Your task to perform on an android device: Add usb-c to the cart on bestbuy, then select checkout. Image 0: 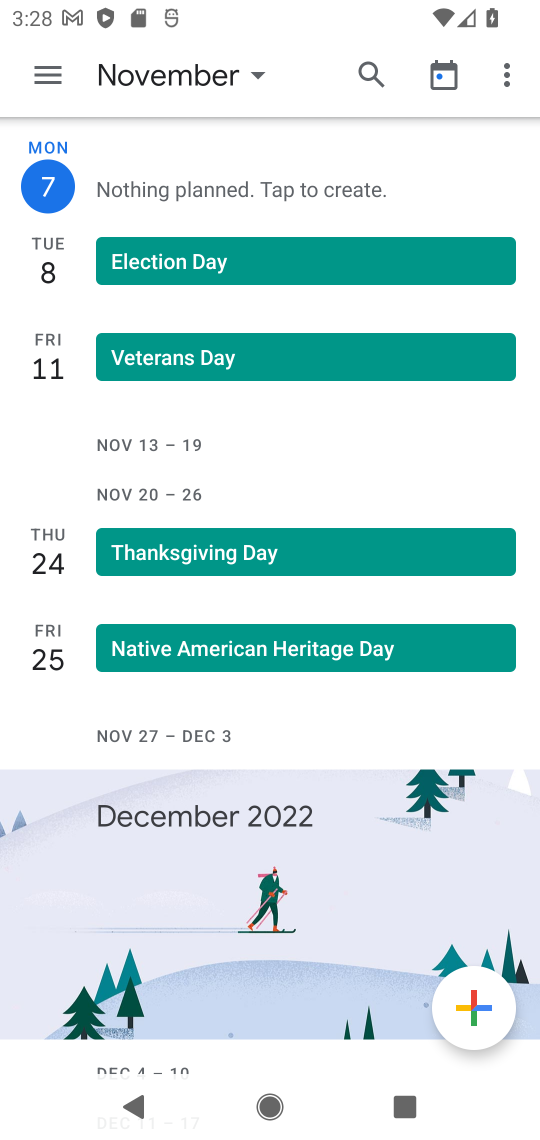
Step 0: press home button
Your task to perform on an android device: Add usb-c to the cart on bestbuy, then select checkout. Image 1: 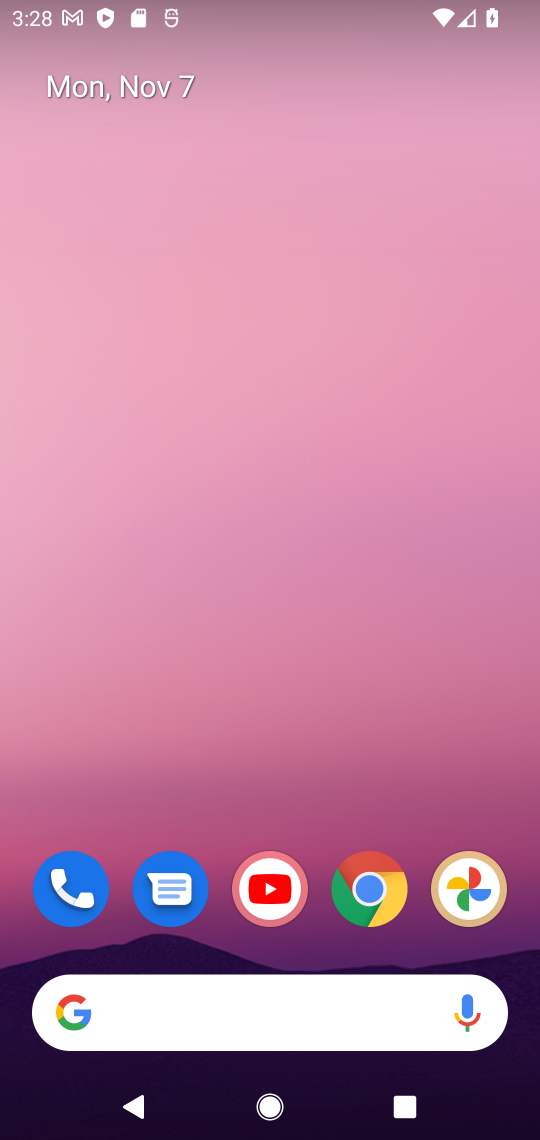
Step 1: click (383, 898)
Your task to perform on an android device: Add usb-c to the cart on bestbuy, then select checkout. Image 2: 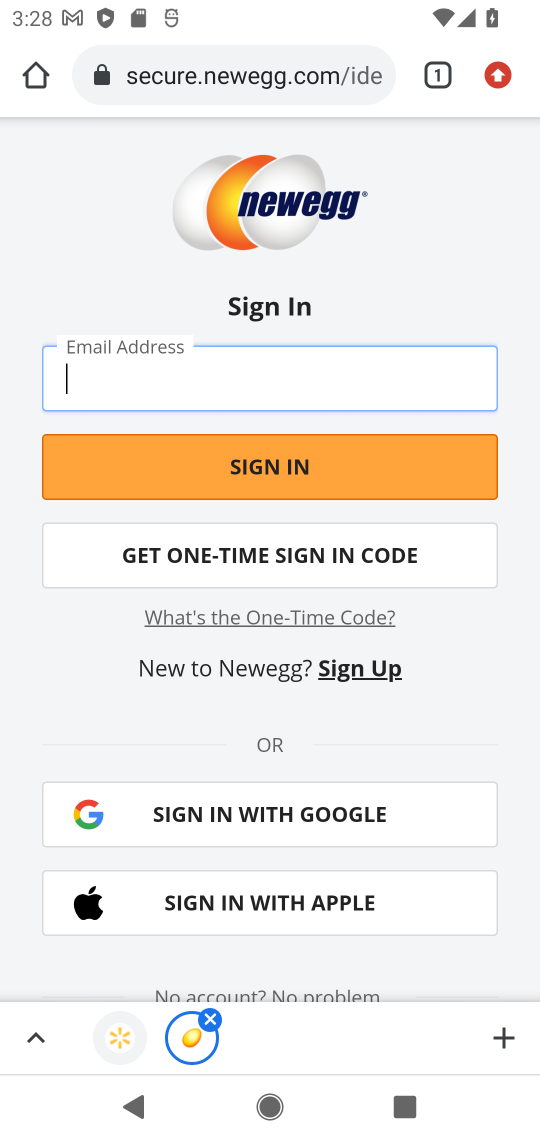
Step 2: click (247, 80)
Your task to perform on an android device: Add usb-c to the cart on bestbuy, then select checkout. Image 3: 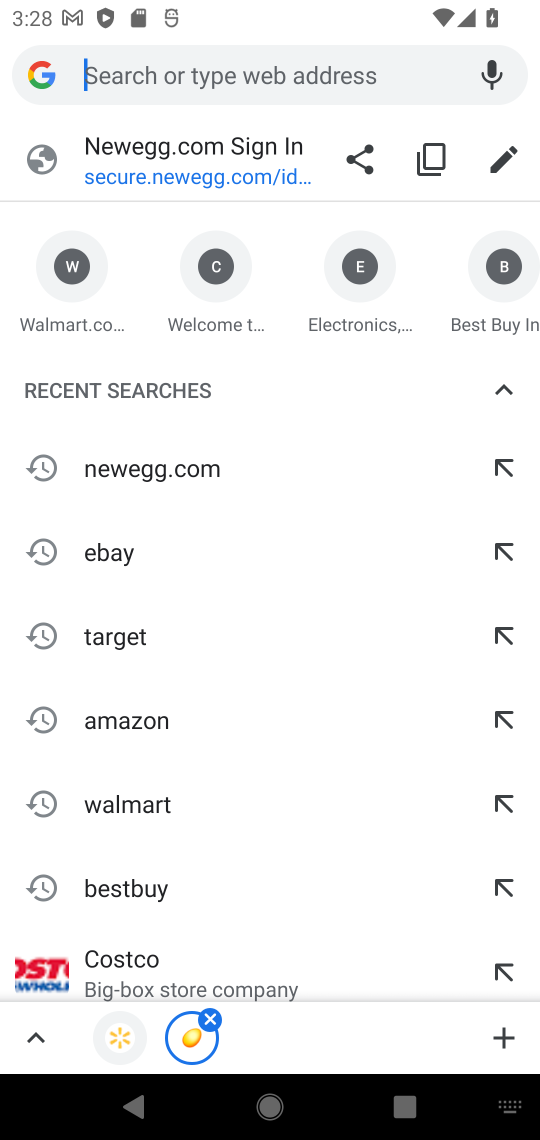
Step 3: type "bestbuy"
Your task to perform on an android device: Add usb-c to the cart on bestbuy, then select checkout. Image 4: 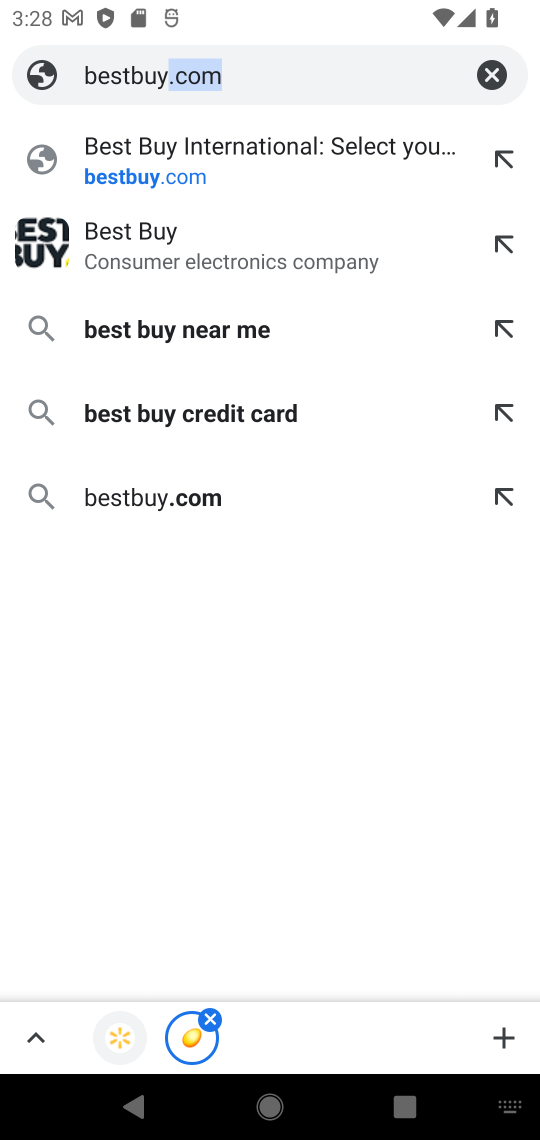
Step 4: click (231, 133)
Your task to perform on an android device: Add usb-c to the cart on bestbuy, then select checkout. Image 5: 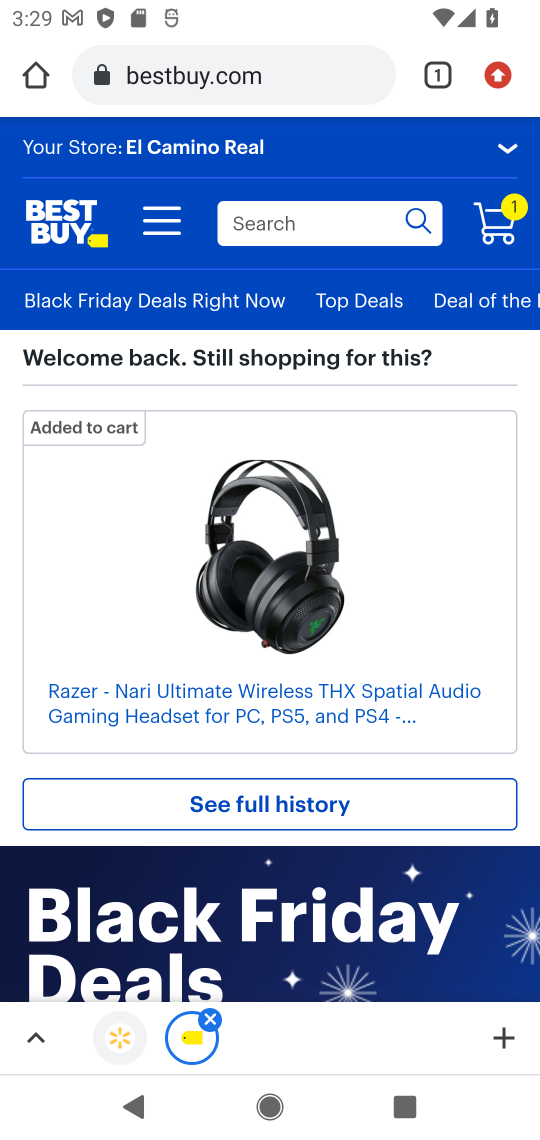
Step 5: click (310, 228)
Your task to perform on an android device: Add usb-c to the cart on bestbuy, then select checkout. Image 6: 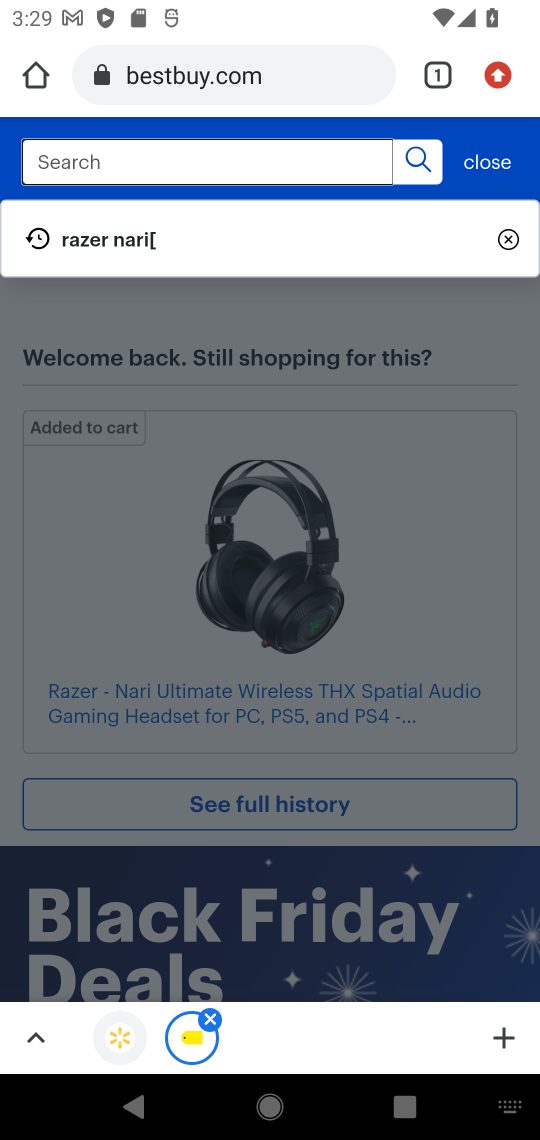
Step 6: type "usb c"
Your task to perform on an android device: Add usb-c to the cart on bestbuy, then select checkout. Image 7: 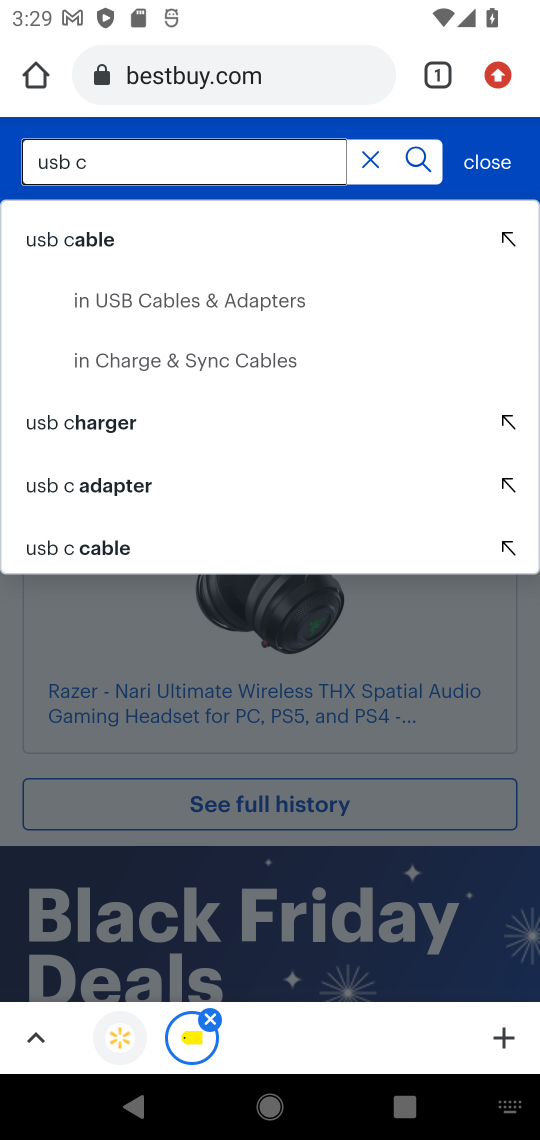
Step 7: press enter
Your task to perform on an android device: Add usb-c to the cart on bestbuy, then select checkout. Image 8: 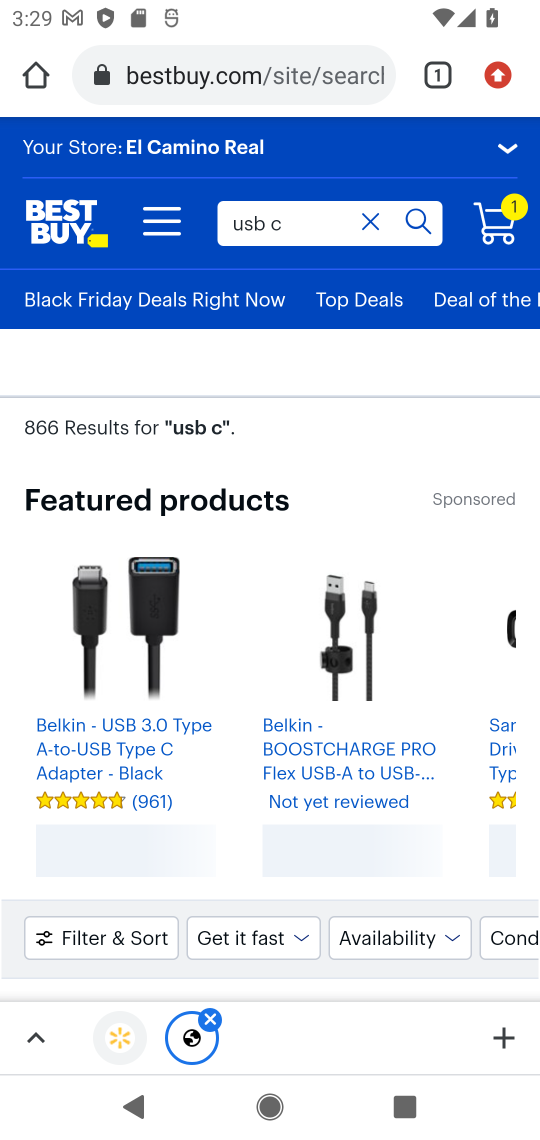
Step 8: click (161, 679)
Your task to perform on an android device: Add usb-c to the cart on bestbuy, then select checkout. Image 9: 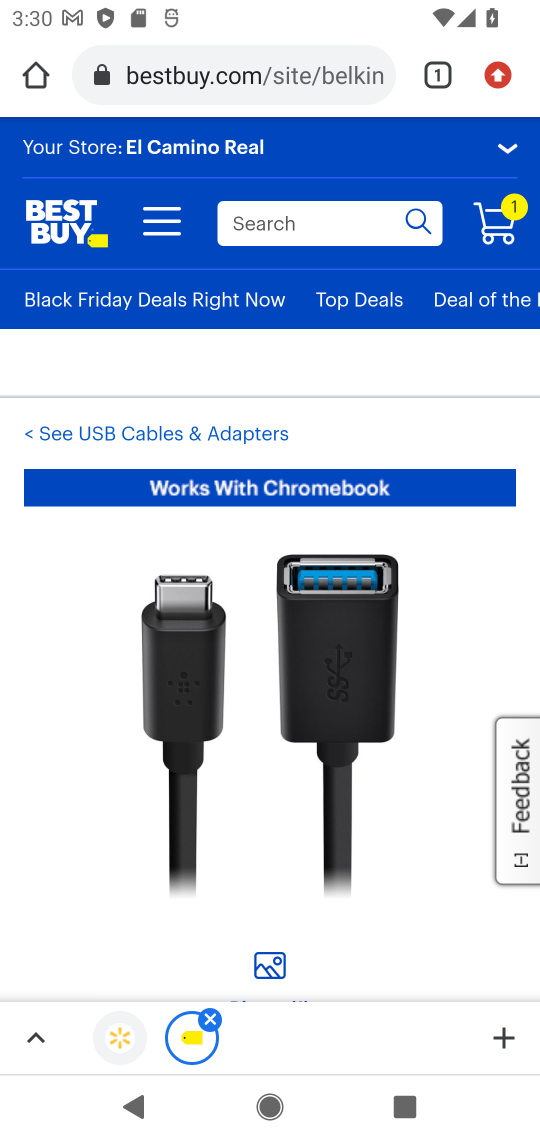
Step 9: drag from (307, 993) to (277, 564)
Your task to perform on an android device: Add usb-c to the cart on bestbuy, then select checkout. Image 10: 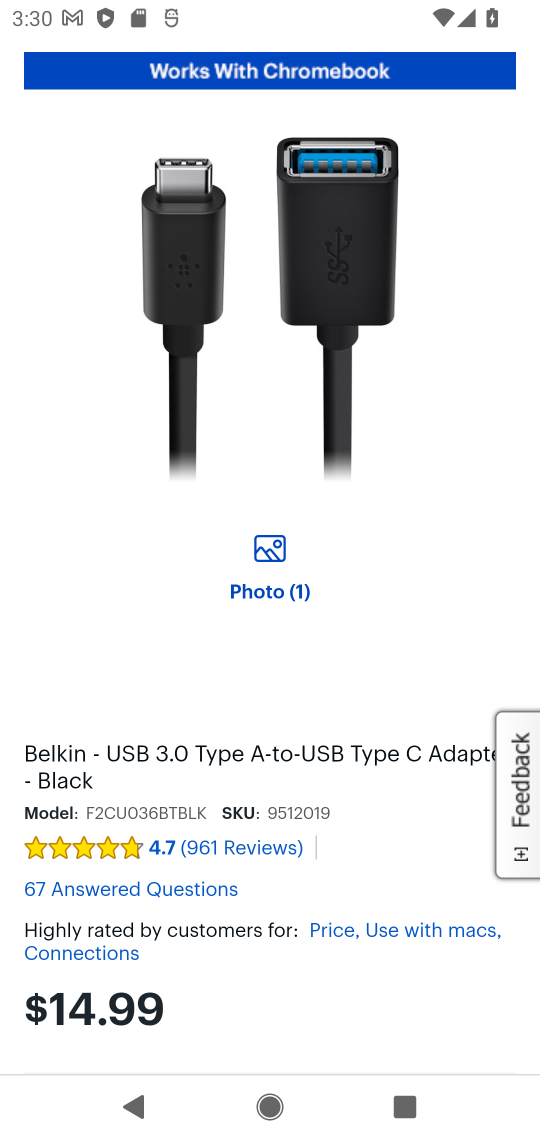
Step 10: drag from (327, 816) to (423, 145)
Your task to perform on an android device: Add usb-c to the cart on bestbuy, then select checkout. Image 11: 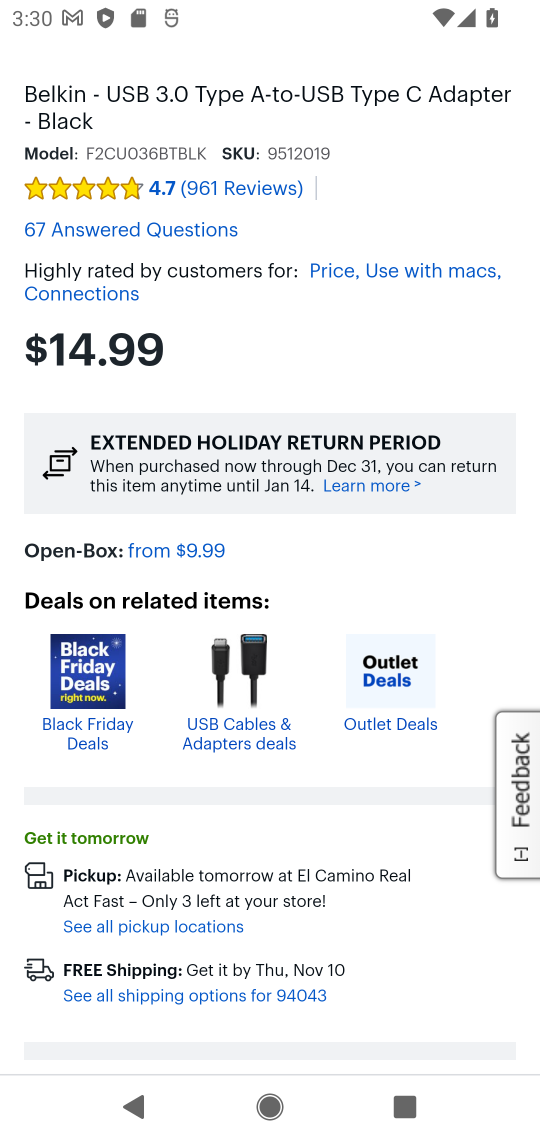
Step 11: drag from (378, 898) to (363, 311)
Your task to perform on an android device: Add usb-c to the cart on bestbuy, then select checkout. Image 12: 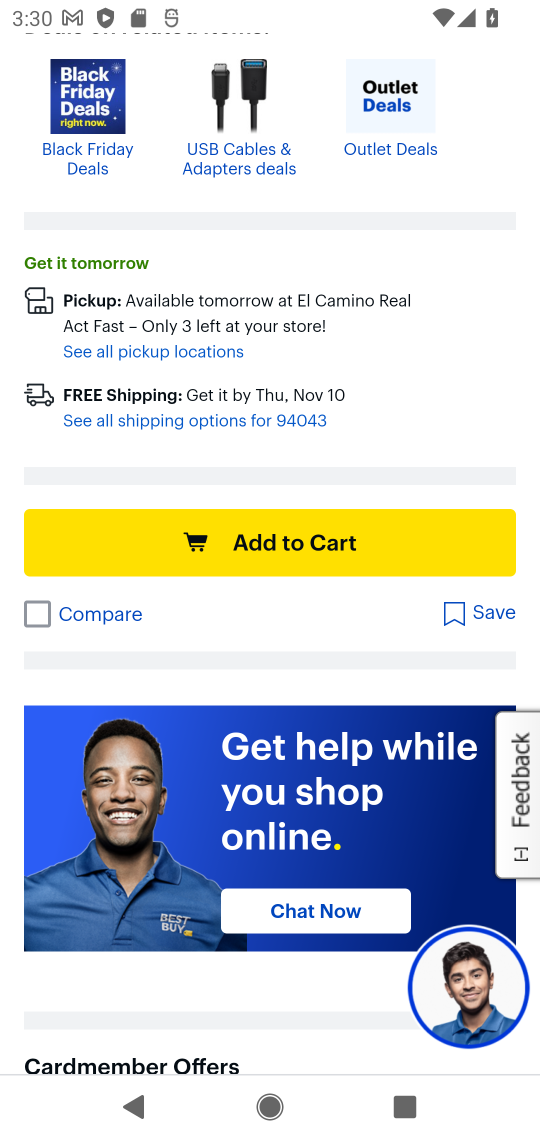
Step 12: click (419, 550)
Your task to perform on an android device: Add usb-c to the cart on bestbuy, then select checkout. Image 13: 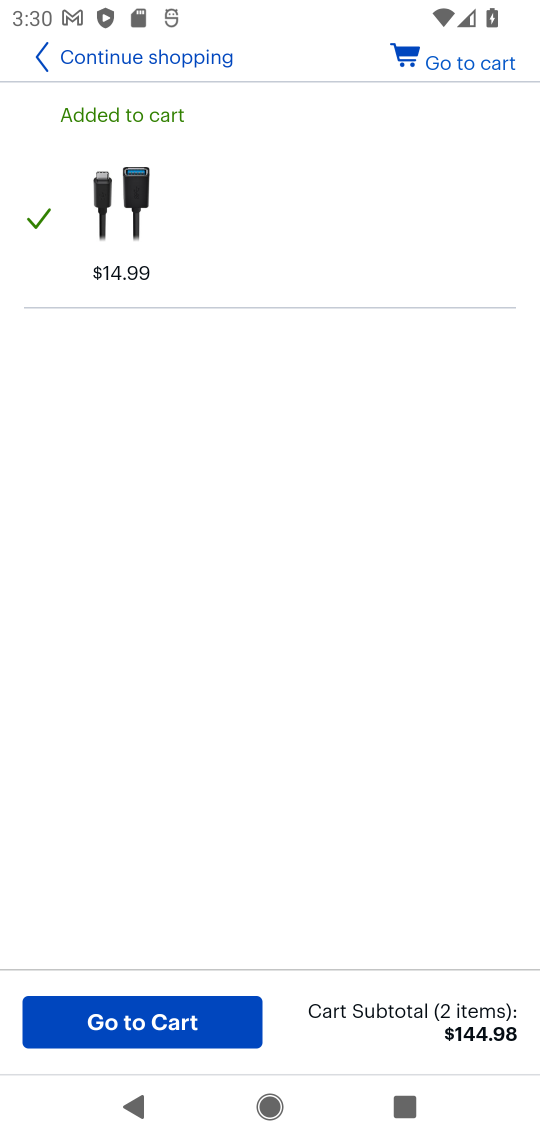
Step 13: click (189, 1034)
Your task to perform on an android device: Add usb-c to the cart on bestbuy, then select checkout. Image 14: 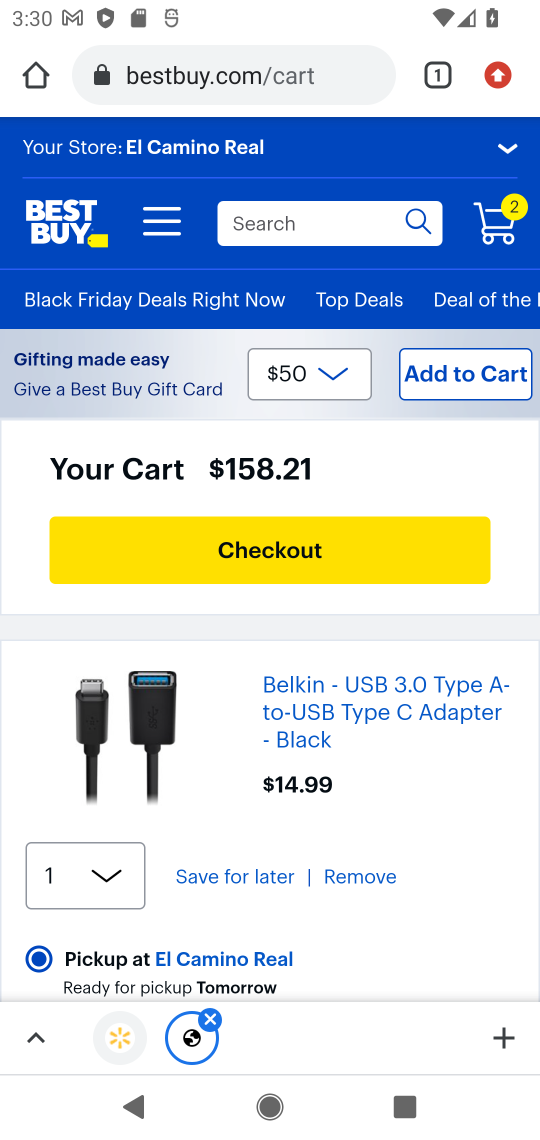
Step 14: click (260, 559)
Your task to perform on an android device: Add usb-c to the cart on bestbuy, then select checkout. Image 15: 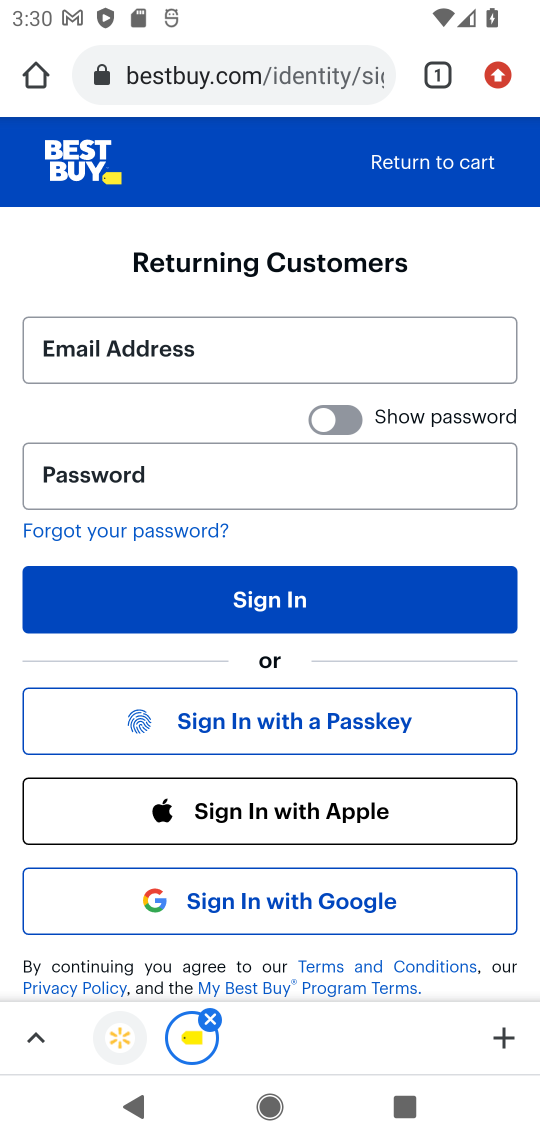
Step 15: task complete